Your task to perform on an android device: Open Google Maps and go to "Timeline" Image 0: 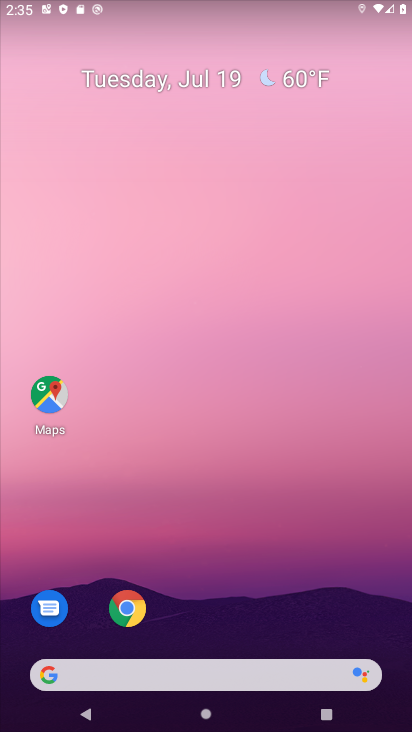
Step 0: drag from (254, 528) to (175, 45)
Your task to perform on an android device: Open Google Maps and go to "Timeline" Image 1: 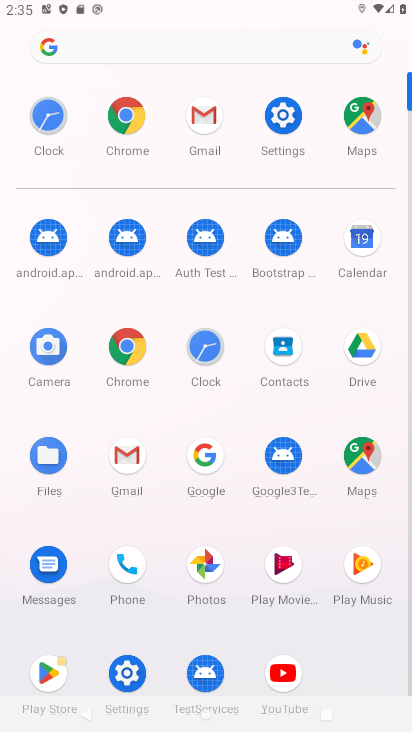
Step 1: click (366, 126)
Your task to perform on an android device: Open Google Maps and go to "Timeline" Image 2: 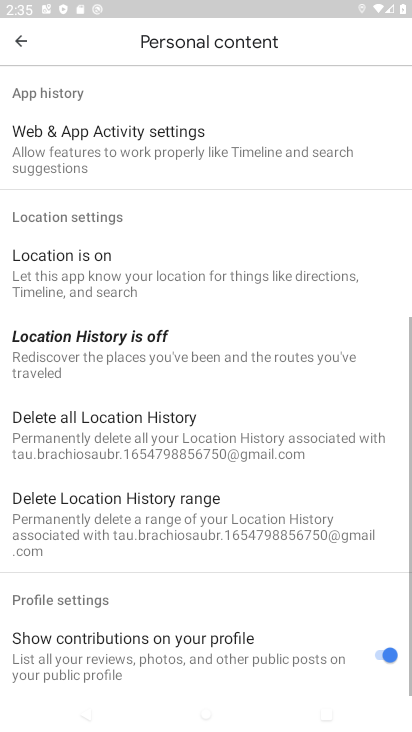
Step 2: click (18, 41)
Your task to perform on an android device: Open Google Maps and go to "Timeline" Image 3: 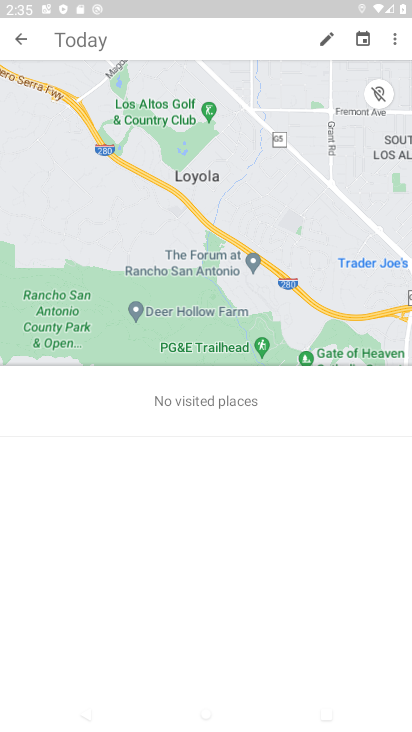
Step 3: click (18, 41)
Your task to perform on an android device: Open Google Maps and go to "Timeline" Image 4: 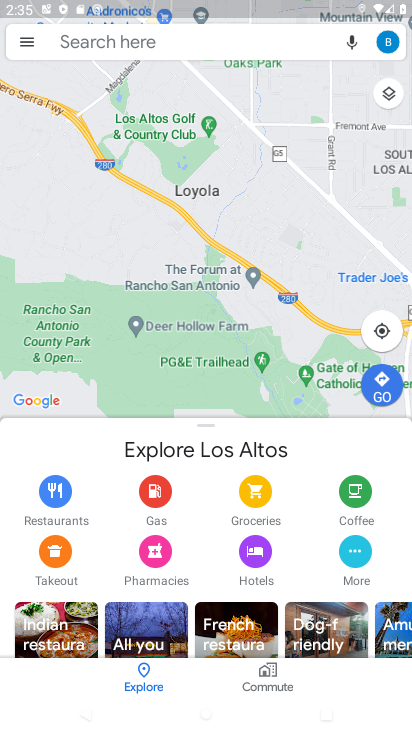
Step 4: click (17, 41)
Your task to perform on an android device: Open Google Maps and go to "Timeline" Image 5: 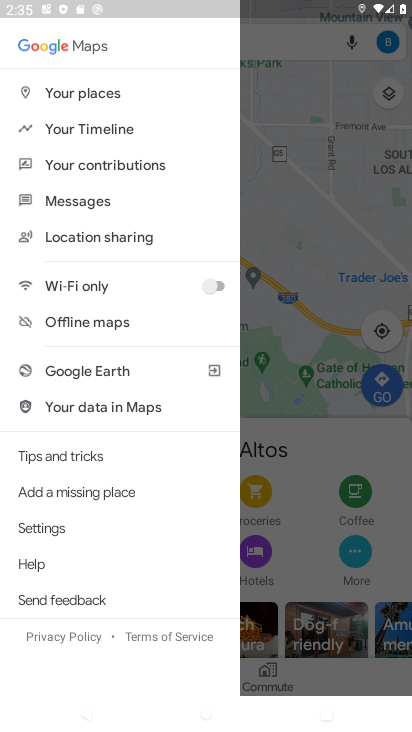
Step 5: click (49, 131)
Your task to perform on an android device: Open Google Maps and go to "Timeline" Image 6: 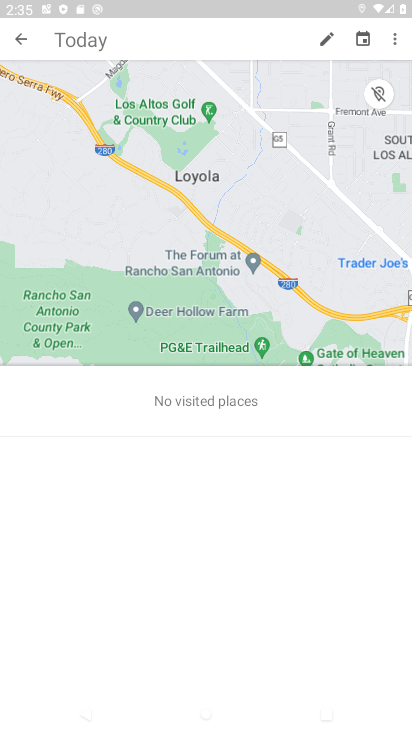
Step 6: task complete